Your task to perform on an android device: Open the stopwatch Image 0: 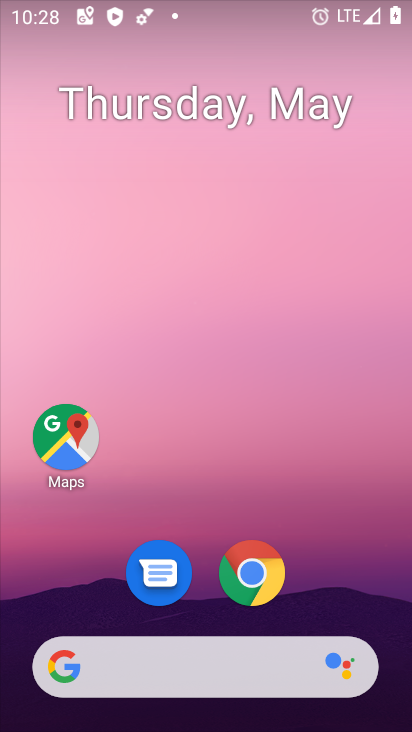
Step 0: drag from (204, 619) to (205, 276)
Your task to perform on an android device: Open the stopwatch Image 1: 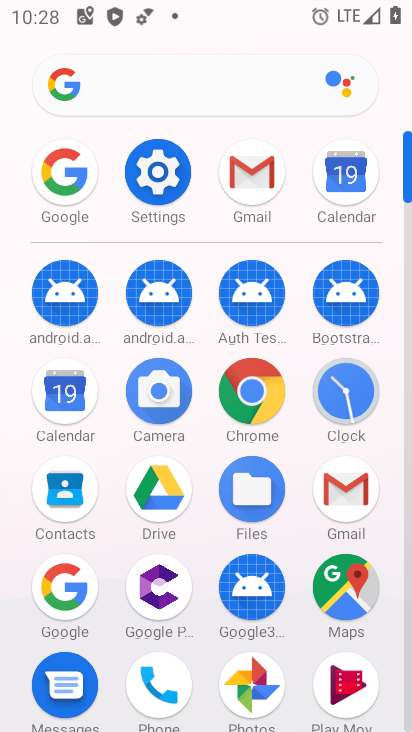
Step 1: click (349, 411)
Your task to perform on an android device: Open the stopwatch Image 2: 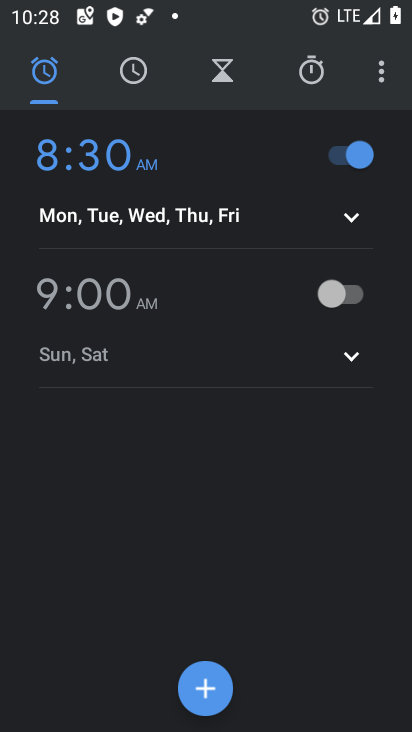
Step 2: click (293, 62)
Your task to perform on an android device: Open the stopwatch Image 3: 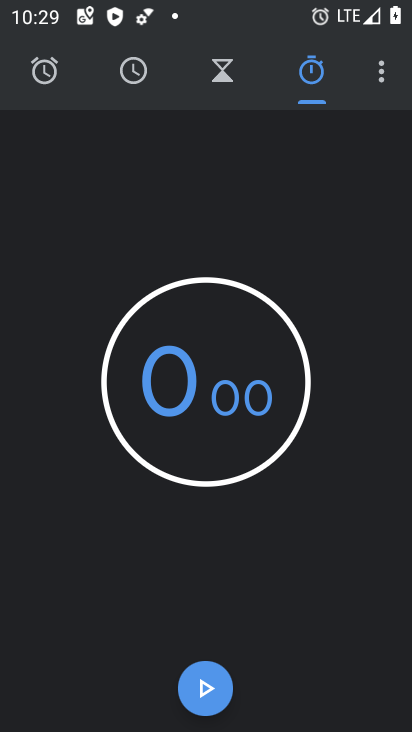
Step 3: task complete